Your task to perform on an android device: turn notification dots on Image 0: 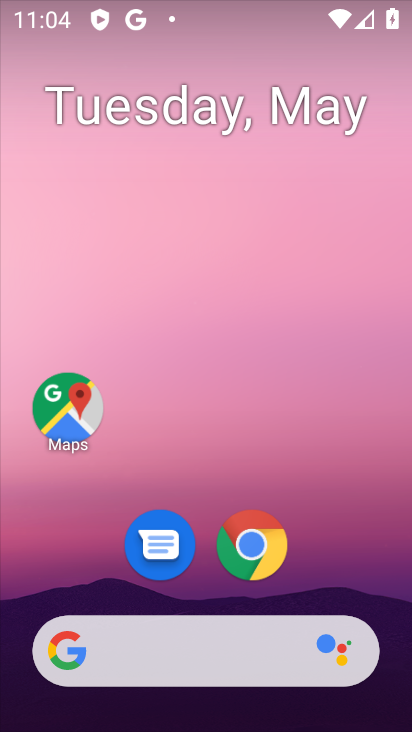
Step 0: drag from (378, 521) to (295, 164)
Your task to perform on an android device: turn notification dots on Image 1: 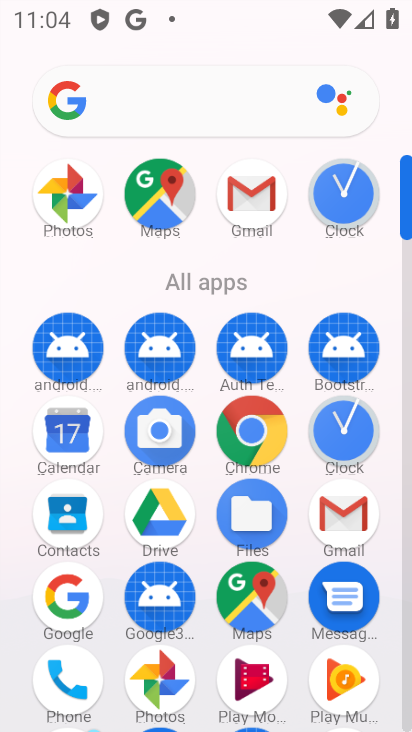
Step 1: drag from (199, 653) to (199, 366)
Your task to perform on an android device: turn notification dots on Image 2: 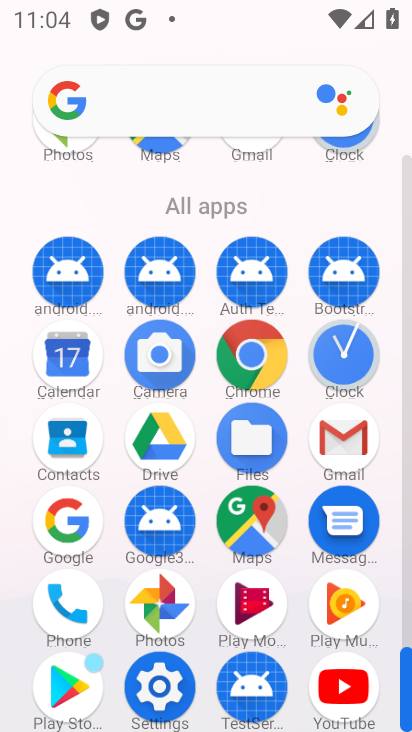
Step 2: click (155, 670)
Your task to perform on an android device: turn notification dots on Image 3: 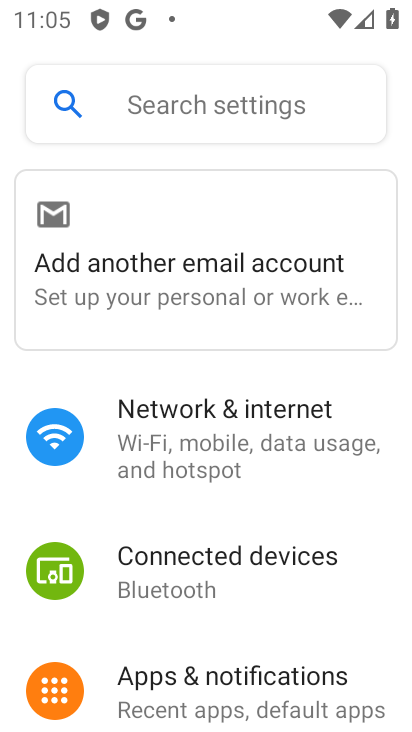
Step 3: drag from (251, 632) to (272, 422)
Your task to perform on an android device: turn notification dots on Image 4: 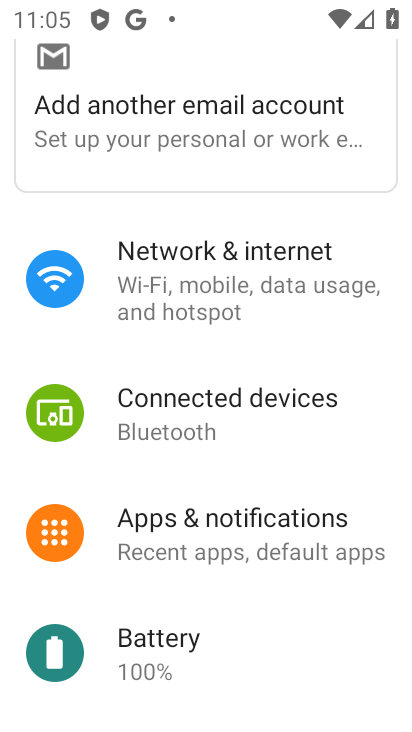
Step 4: click (213, 517)
Your task to perform on an android device: turn notification dots on Image 5: 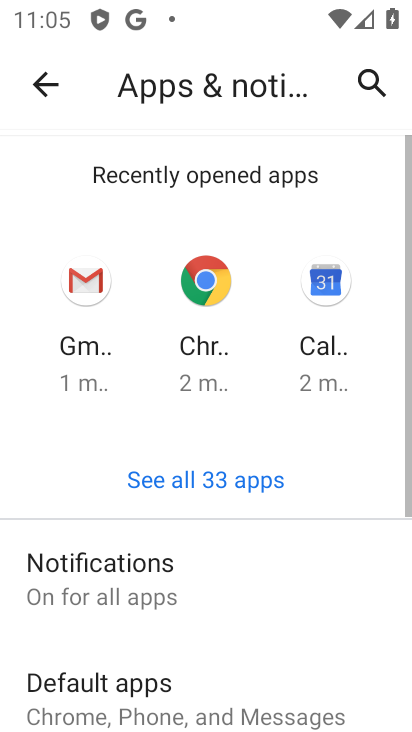
Step 5: drag from (192, 652) to (178, 301)
Your task to perform on an android device: turn notification dots on Image 6: 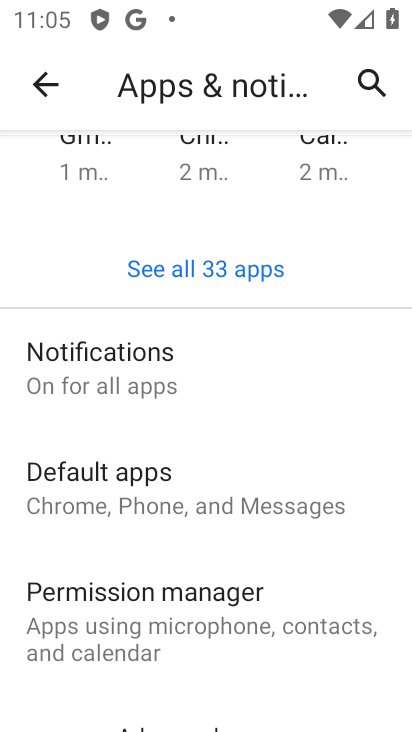
Step 6: click (143, 341)
Your task to perform on an android device: turn notification dots on Image 7: 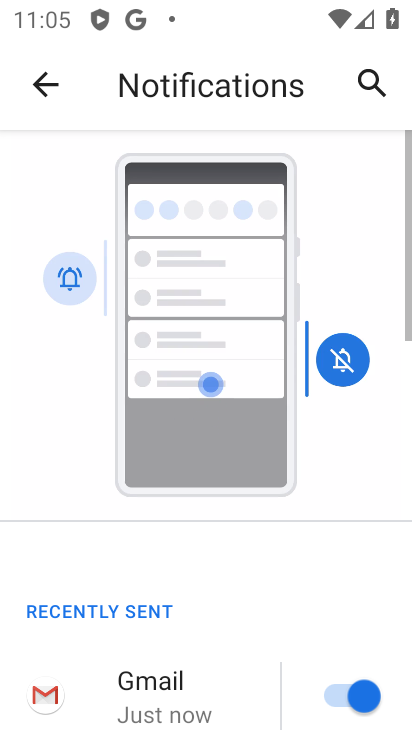
Step 7: drag from (197, 700) to (224, 258)
Your task to perform on an android device: turn notification dots on Image 8: 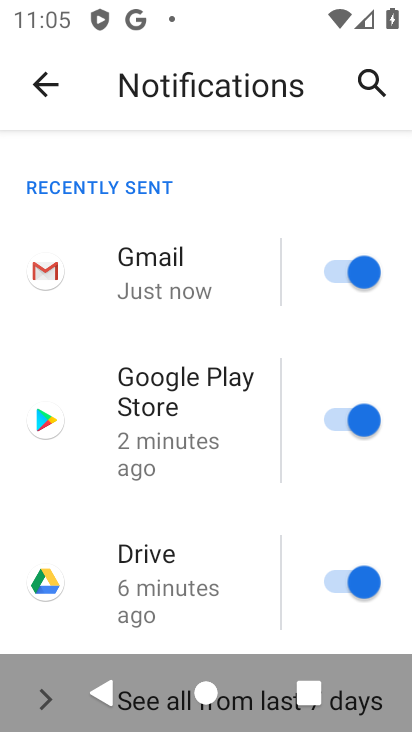
Step 8: drag from (208, 504) to (202, 202)
Your task to perform on an android device: turn notification dots on Image 9: 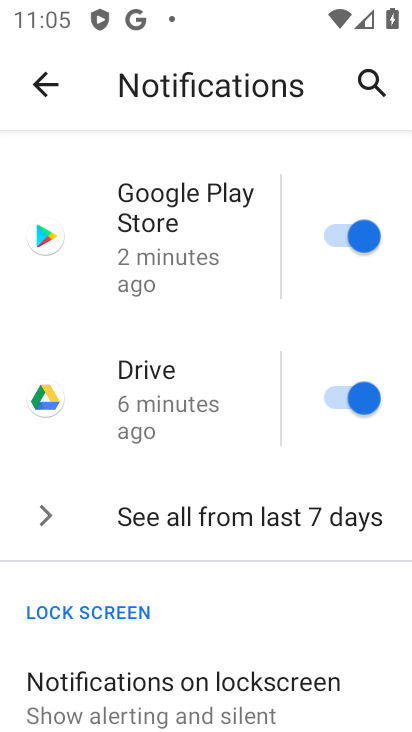
Step 9: drag from (211, 647) to (231, 236)
Your task to perform on an android device: turn notification dots on Image 10: 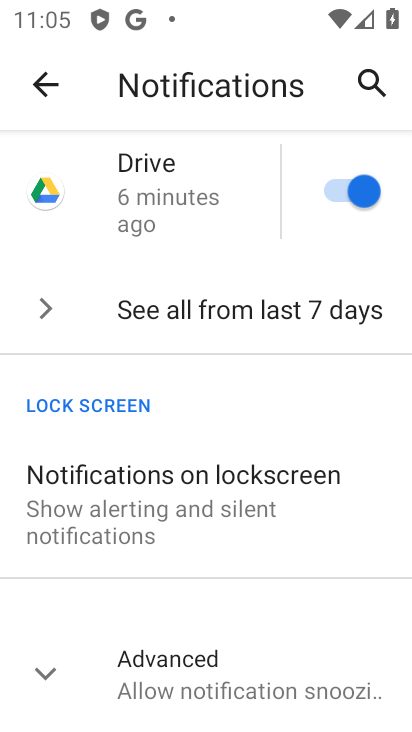
Step 10: click (209, 631)
Your task to perform on an android device: turn notification dots on Image 11: 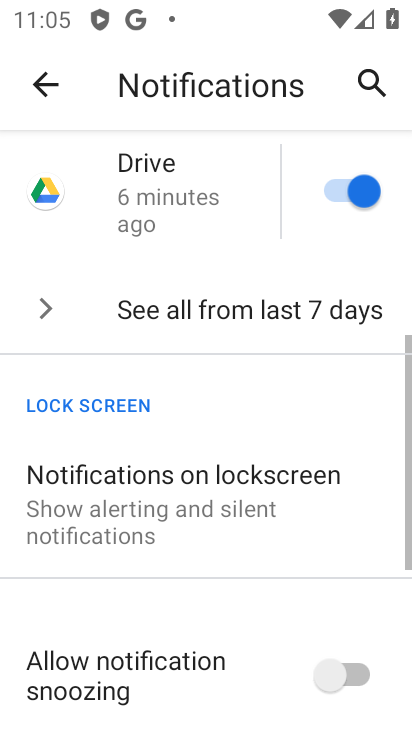
Step 11: task complete